Your task to perform on an android device: Open settings Image 0: 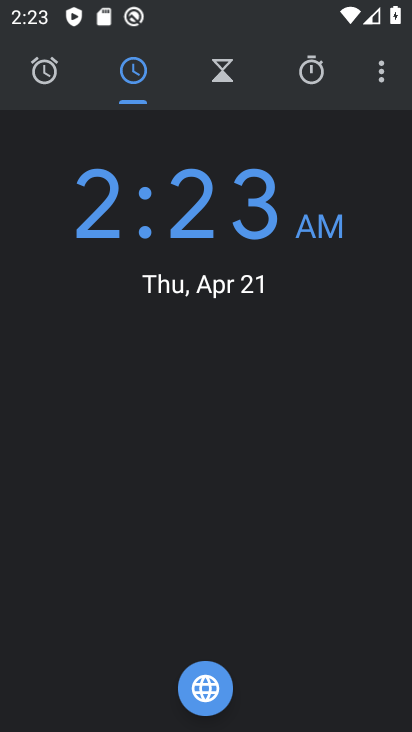
Step 0: press home button
Your task to perform on an android device: Open settings Image 1: 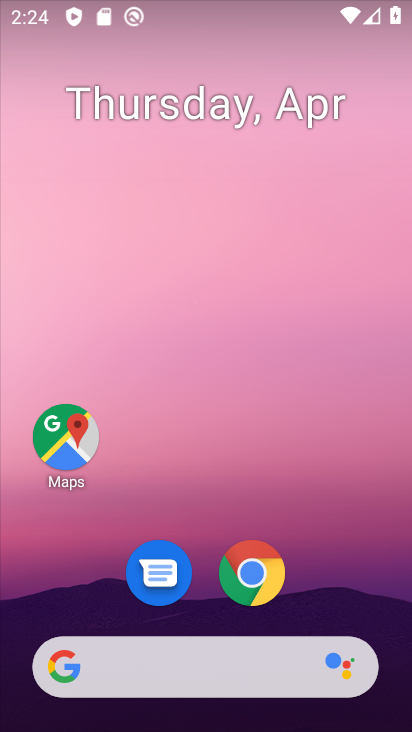
Step 1: drag from (335, 592) to (257, 22)
Your task to perform on an android device: Open settings Image 2: 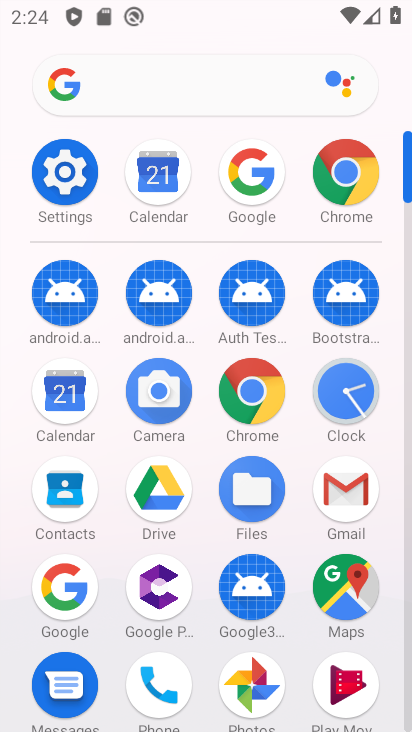
Step 2: click (61, 190)
Your task to perform on an android device: Open settings Image 3: 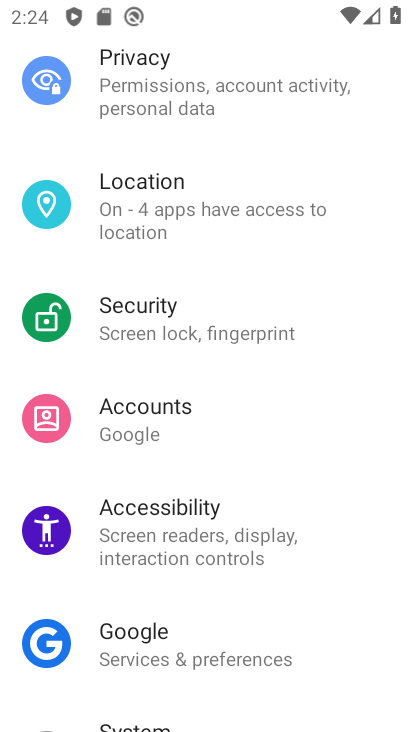
Step 3: task complete